Your task to perform on an android device: turn on the 12-hour format for clock Image 0: 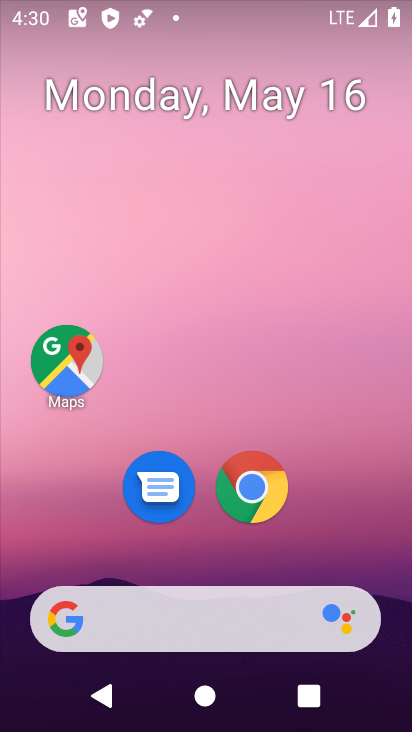
Step 0: drag from (401, 604) to (342, 128)
Your task to perform on an android device: turn on the 12-hour format for clock Image 1: 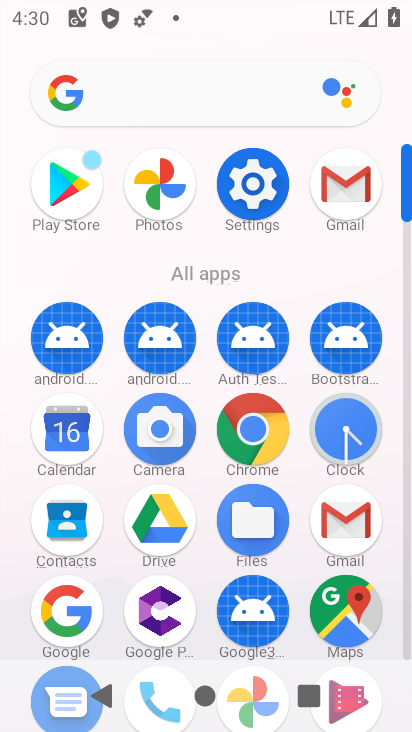
Step 1: click (410, 635)
Your task to perform on an android device: turn on the 12-hour format for clock Image 2: 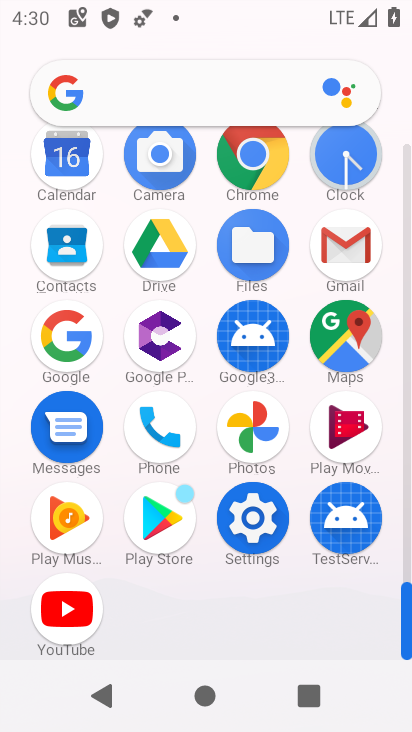
Step 2: click (343, 149)
Your task to perform on an android device: turn on the 12-hour format for clock Image 3: 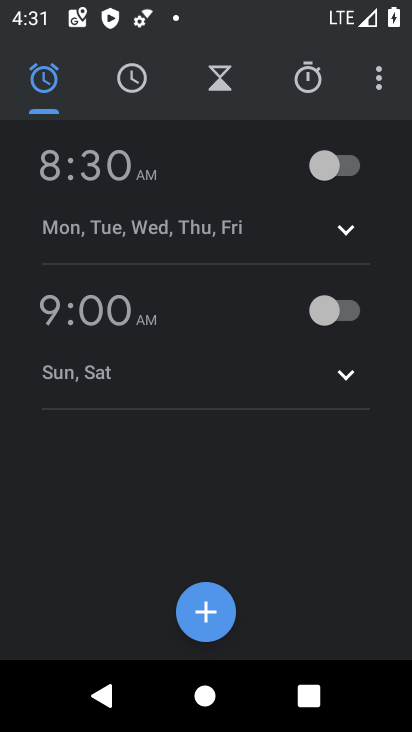
Step 3: click (378, 79)
Your task to perform on an android device: turn on the 12-hour format for clock Image 4: 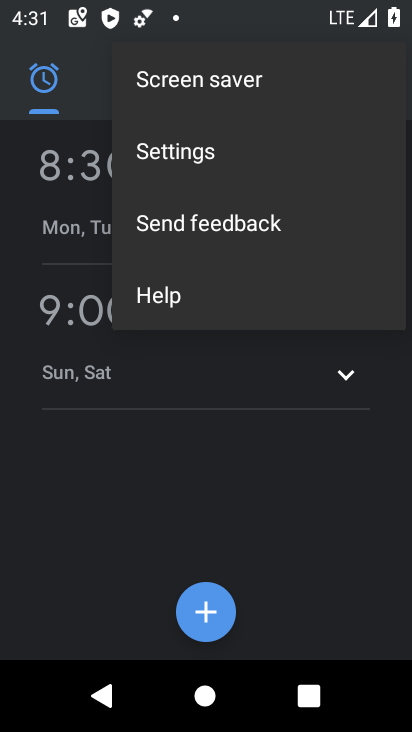
Step 4: click (175, 146)
Your task to perform on an android device: turn on the 12-hour format for clock Image 5: 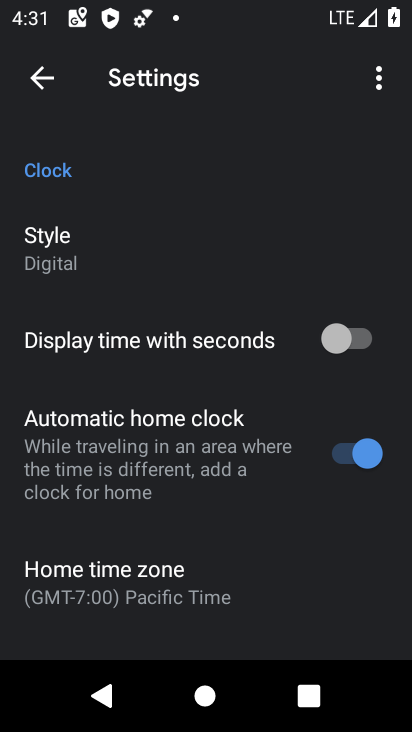
Step 5: drag from (270, 531) to (281, 82)
Your task to perform on an android device: turn on the 12-hour format for clock Image 6: 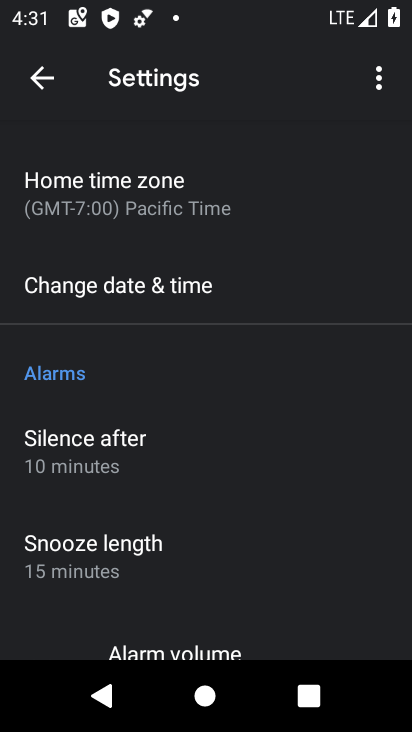
Step 6: click (140, 282)
Your task to perform on an android device: turn on the 12-hour format for clock Image 7: 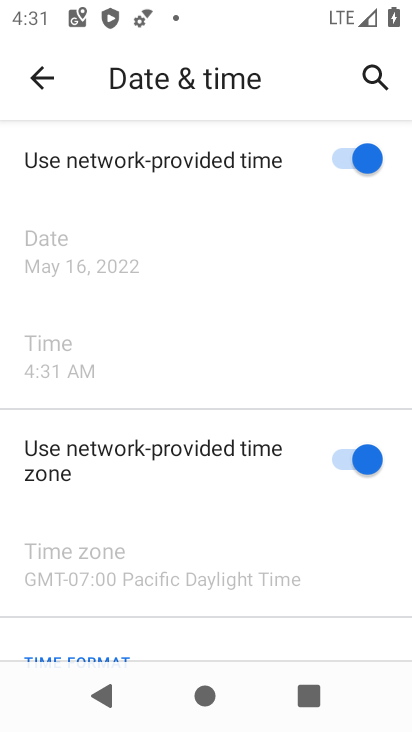
Step 7: task complete